Your task to perform on an android device: When is my next appointment? Image 0: 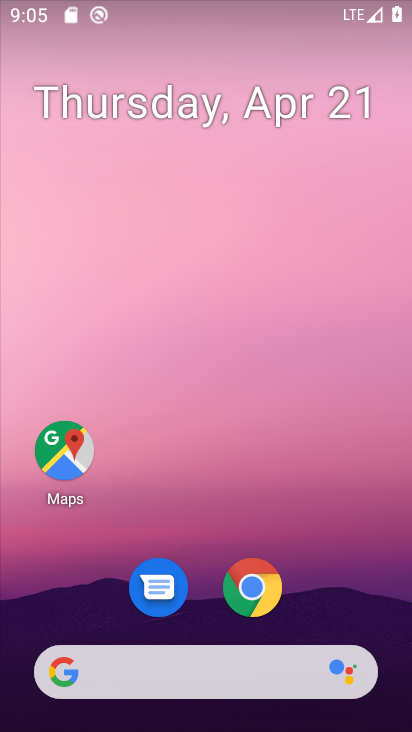
Step 0: drag from (349, 374) to (342, 278)
Your task to perform on an android device: When is my next appointment? Image 1: 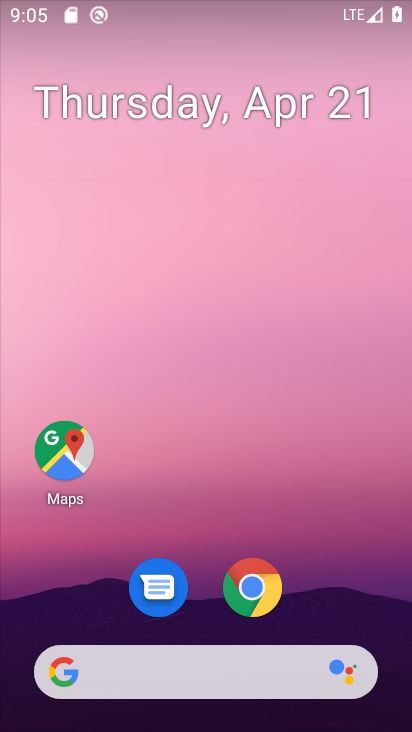
Step 1: drag from (360, 401) to (349, 229)
Your task to perform on an android device: When is my next appointment? Image 2: 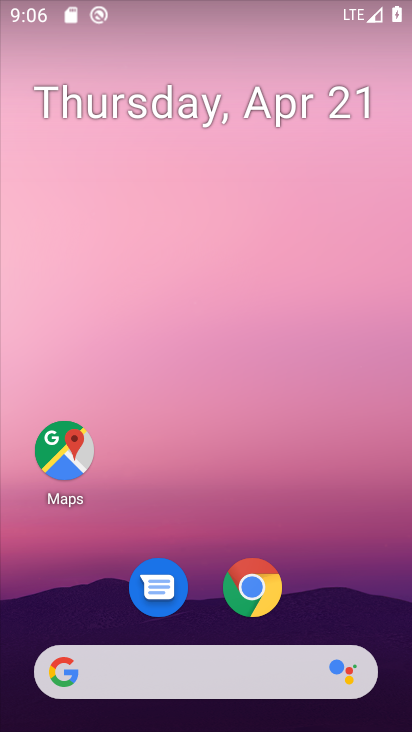
Step 2: drag from (373, 545) to (362, 129)
Your task to perform on an android device: When is my next appointment? Image 3: 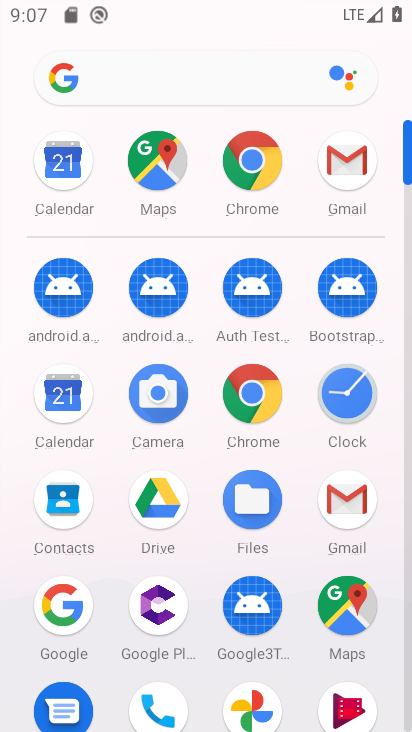
Step 3: click (56, 397)
Your task to perform on an android device: When is my next appointment? Image 4: 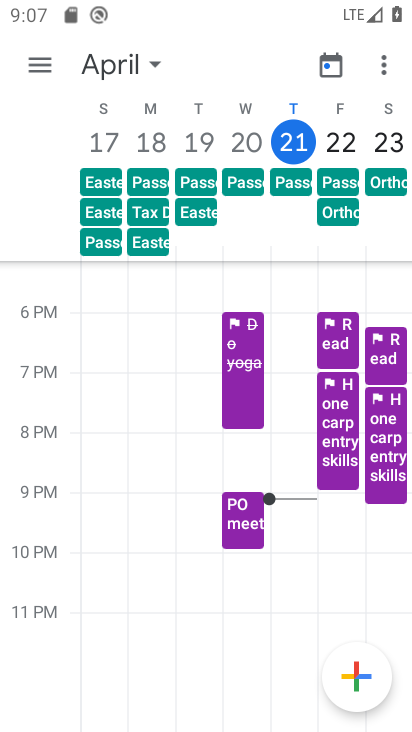
Step 4: click (32, 55)
Your task to perform on an android device: When is my next appointment? Image 5: 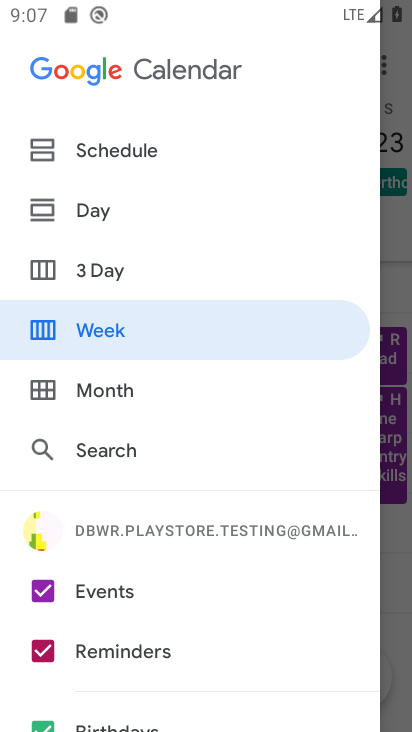
Step 5: task complete